Your task to perform on an android device: turn notification dots off Image 0: 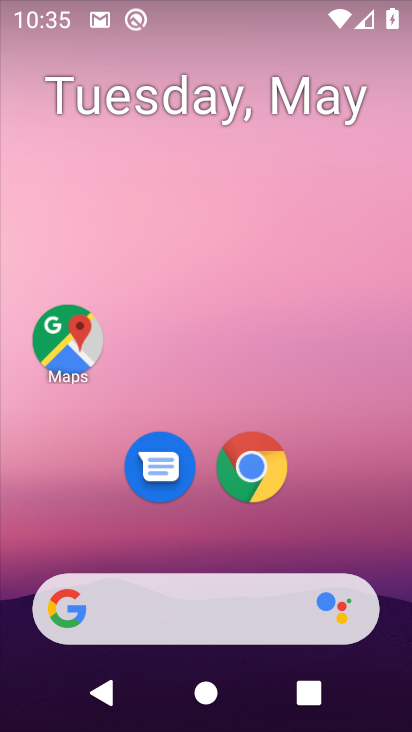
Step 0: drag from (304, 493) to (307, 111)
Your task to perform on an android device: turn notification dots off Image 1: 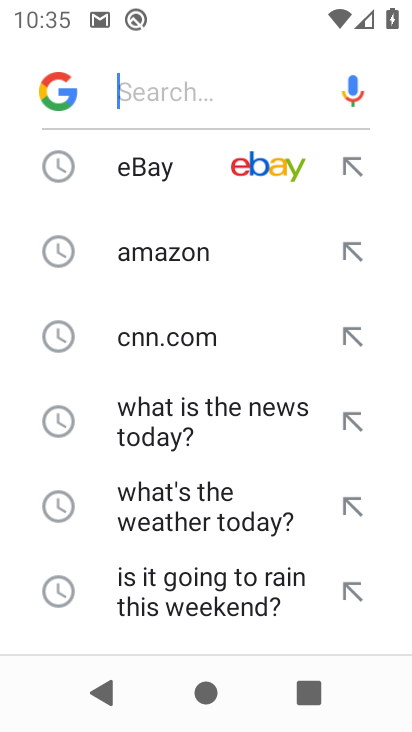
Step 1: press home button
Your task to perform on an android device: turn notification dots off Image 2: 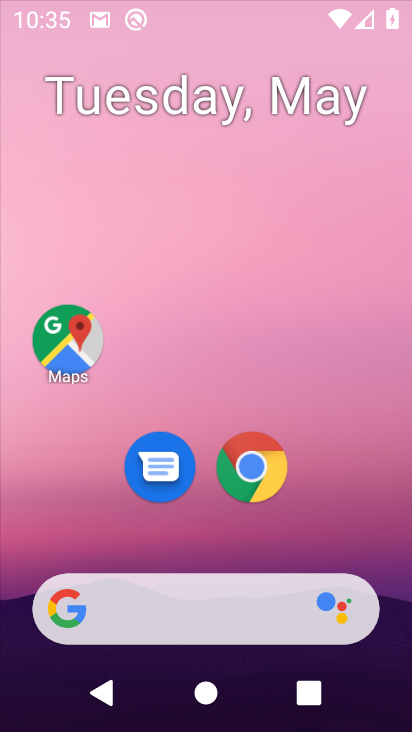
Step 2: drag from (149, 615) to (375, 134)
Your task to perform on an android device: turn notification dots off Image 3: 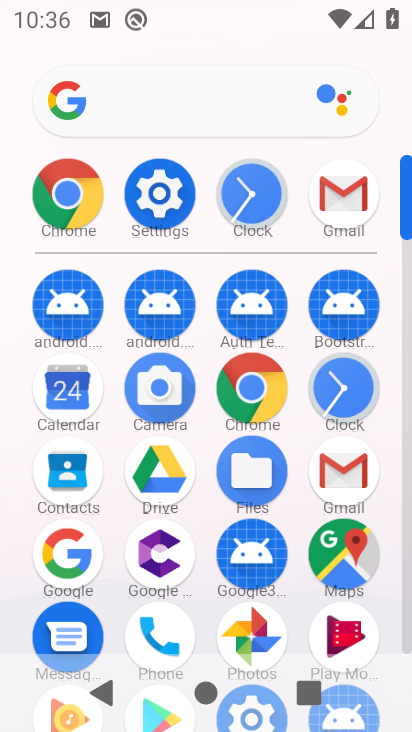
Step 3: click (161, 180)
Your task to perform on an android device: turn notification dots off Image 4: 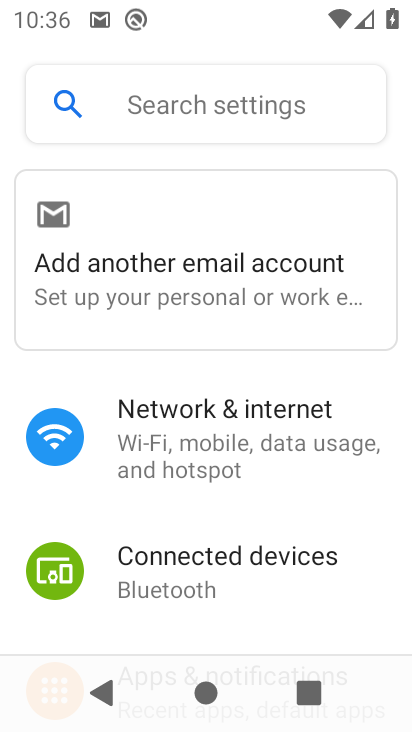
Step 4: drag from (218, 586) to (283, 8)
Your task to perform on an android device: turn notification dots off Image 5: 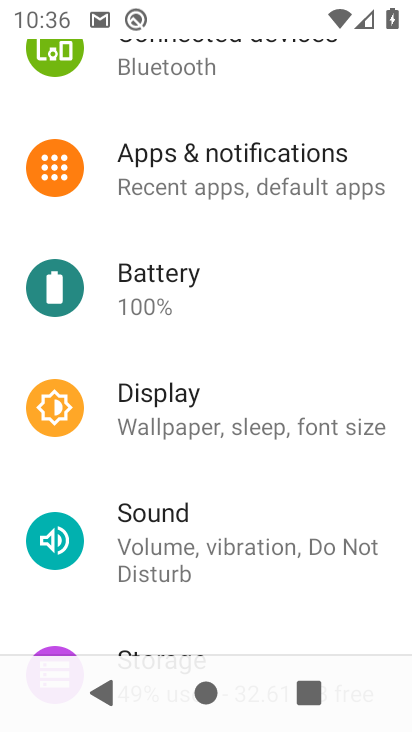
Step 5: click (182, 175)
Your task to perform on an android device: turn notification dots off Image 6: 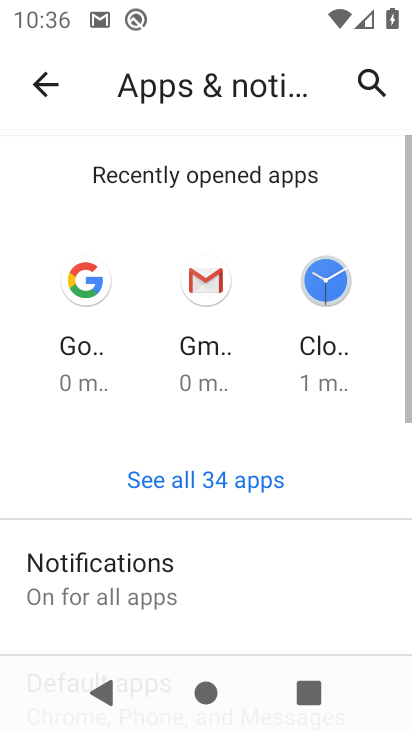
Step 6: click (147, 566)
Your task to perform on an android device: turn notification dots off Image 7: 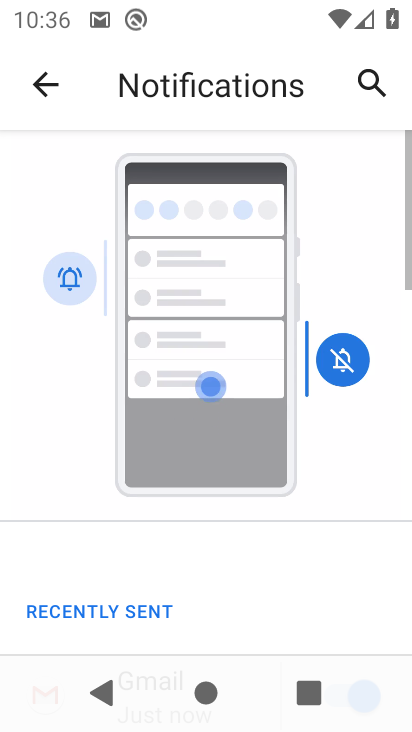
Step 7: drag from (196, 615) to (307, 87)
Your task to perform on an android device: turn notification dots off Image 8: 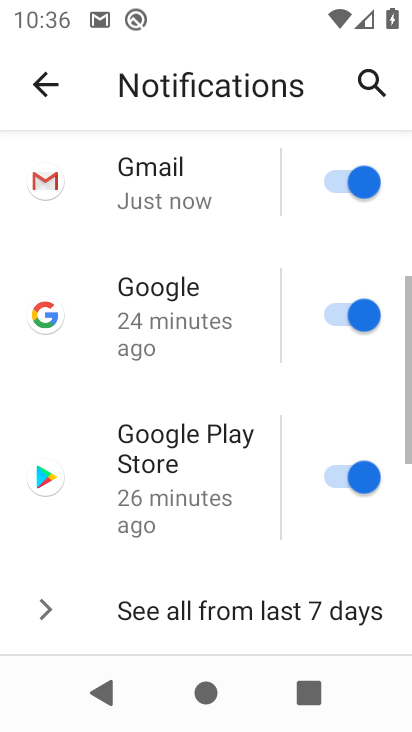
Step 8: drag from (254, 430) to (307, 134)
Your task to perform on an android device: turn notification dots off Image 9: 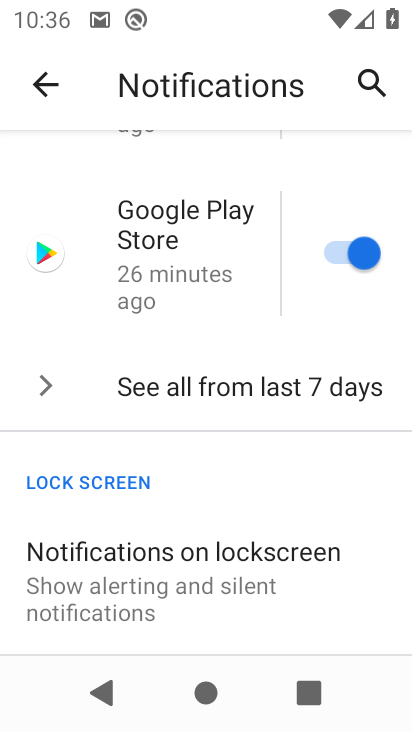
Step 9: drag from (221, 587) to (338, 149)
Your task to perform on an android device: turn notification dots off Image 10: 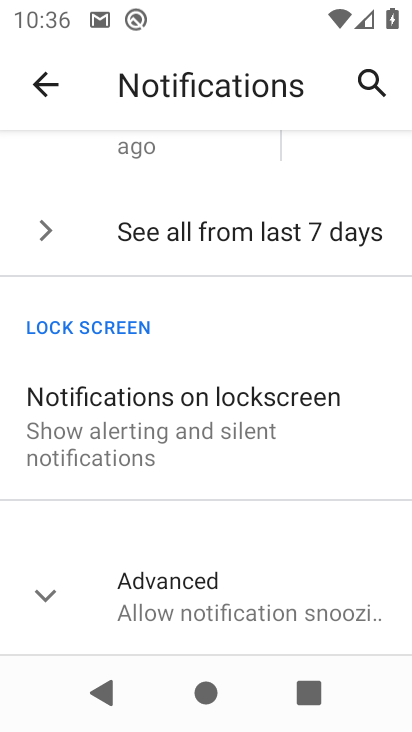
Step 10: click (212, 605)
Your task to perform on an android device: turn notification dots off Image 11: 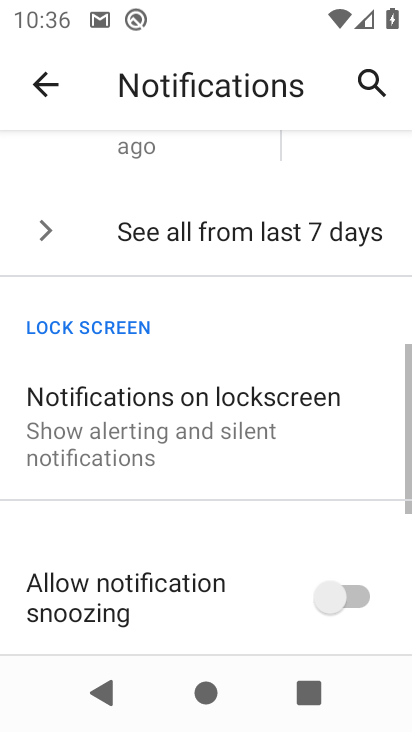
Step 11: drag from (209, 603) to (296, 238)
Your task to perform on an android device: turn notification dots off Image 12: 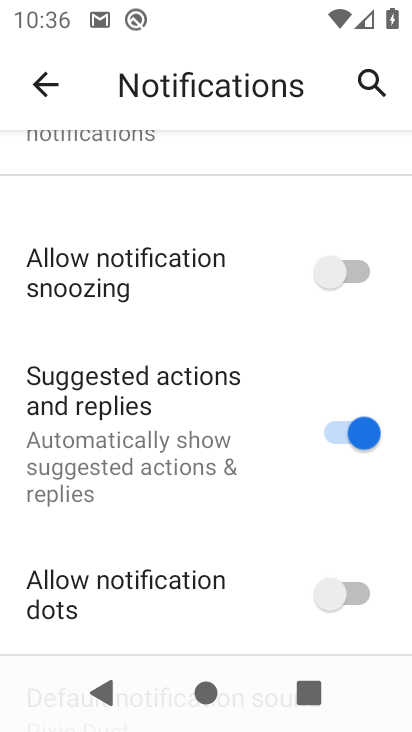
Step 12: click (325, 609)
Your task to perform on an android device: turn notification dots off Image 13: 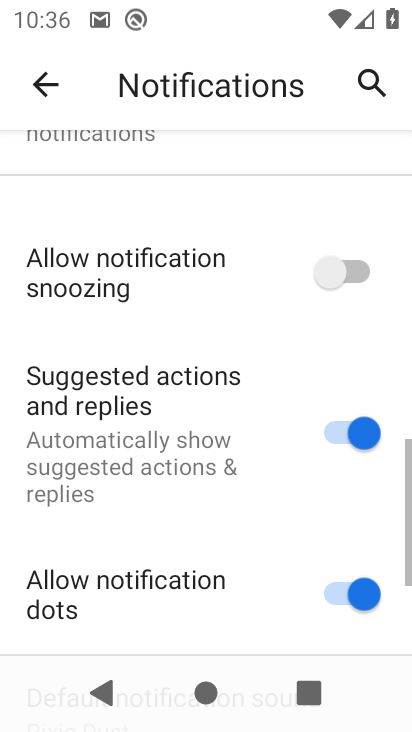
Step 13: click (322, 596)
Your task to perform on an android device: turn notification dots off Image 14: 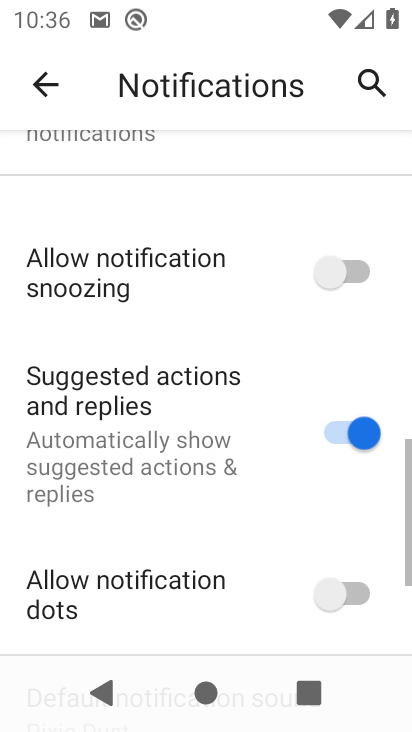
Step 14: task complete